Your task to perform on an android device: open app "The Home Depot" (install if not already installed) Image 0: 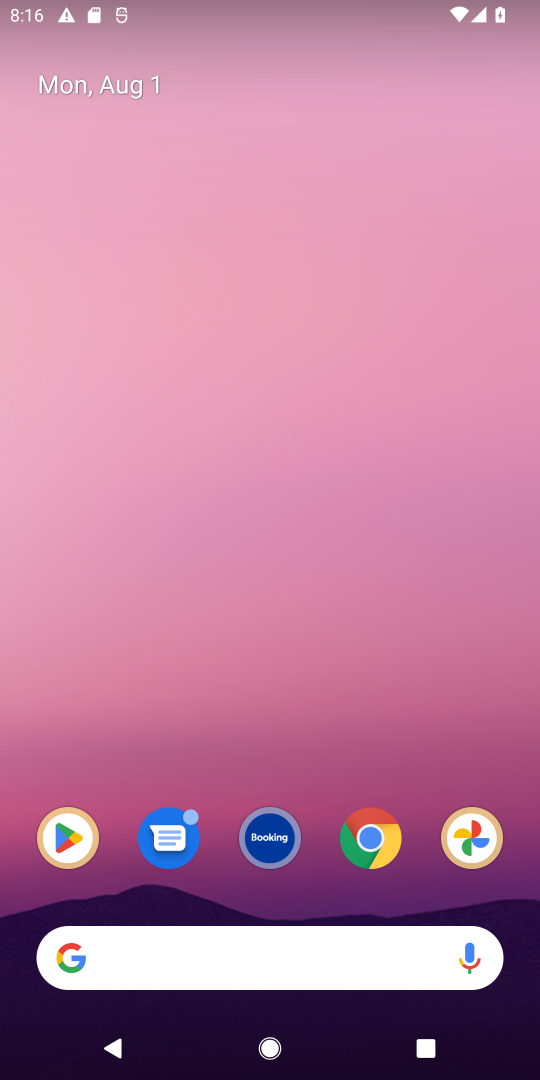
Step 0: drag from (340, 970) to (346, 178)
Your task to perform on an android device: open app "The Home Depot" (install if not already installed) Image 1: 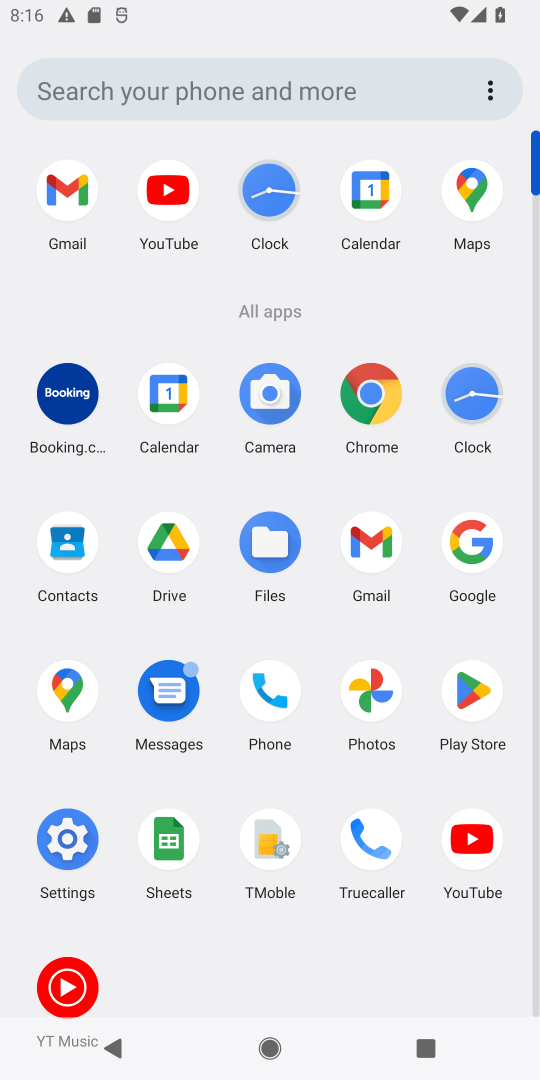
Step 1: click (490, 684)
Your task to perform on an android device: open app "The Home Depot" (install if not already installed) Image 2: 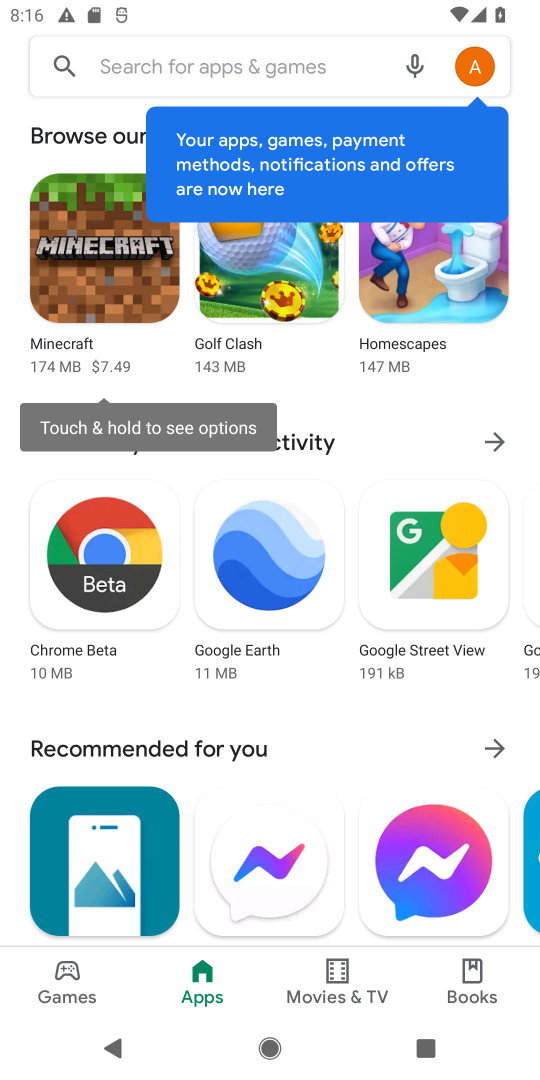
Step 2: click (232, 73)
Your task to perform on an android device: open app "The Home Depot" (install if not already installed) Image 3: 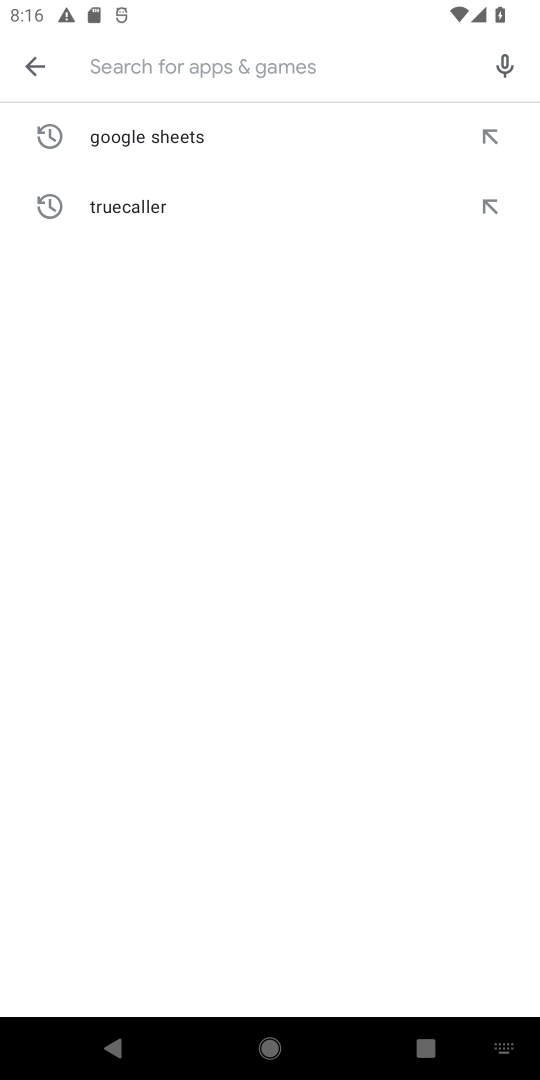
Step 3: type "the home depot"
Your task to perform on an android device: open app "The Home Depot" (install if not already installed) Image 4: 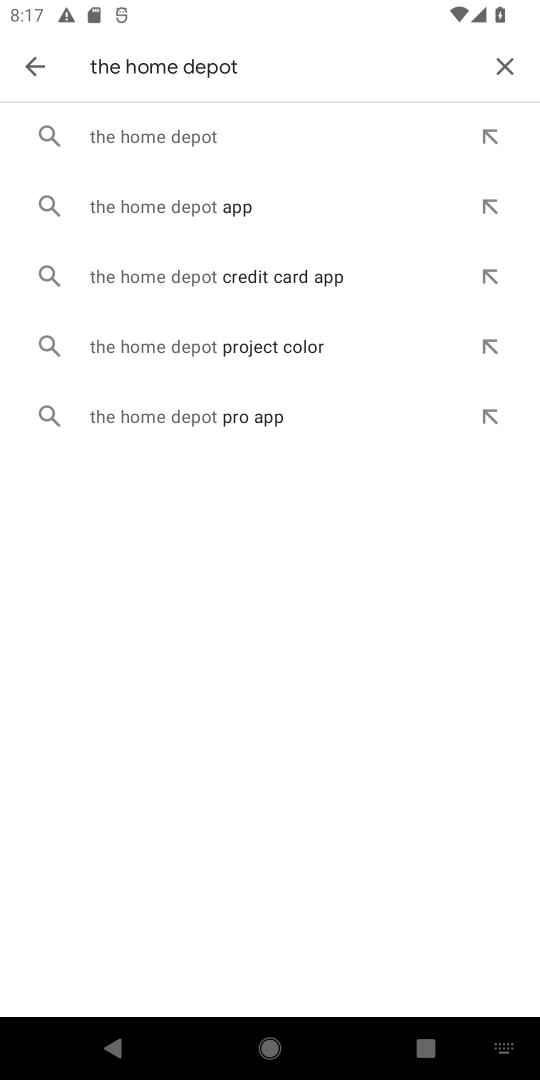
Step 4: click (237, 152)
Your task to perform on an android device: open app "The Home Depot" (install if not already installed) Image 5: 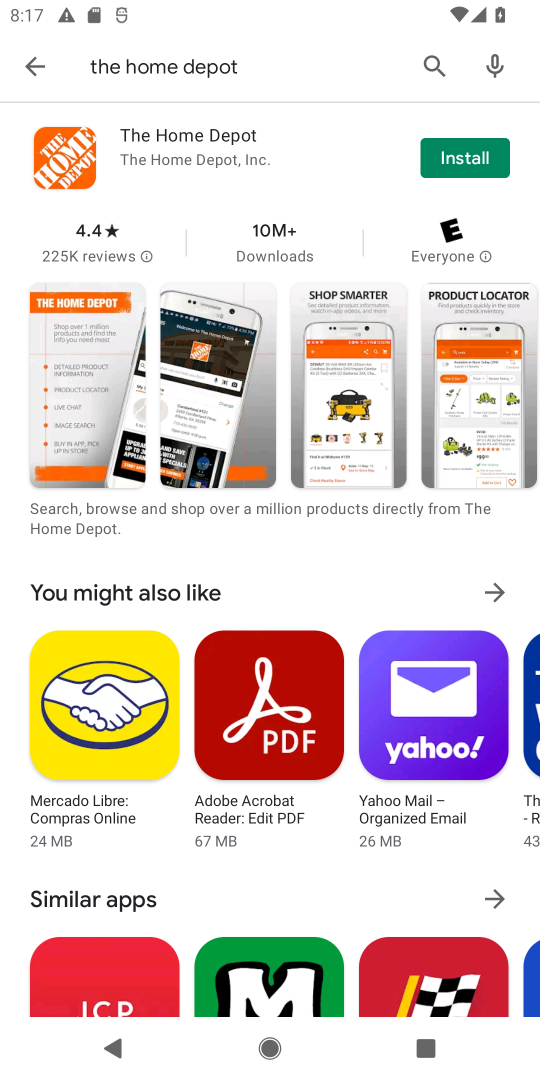
Step 5: click (423, 143)
Your task to perform on an android device: open app "The Home Depot" (install if not already installed) Image 6: 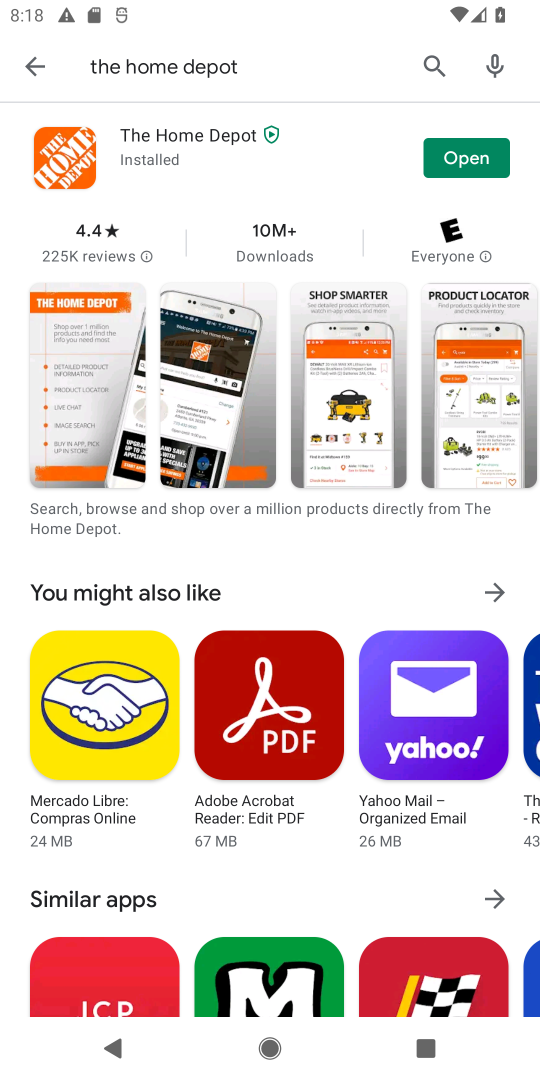
Step 6: task complete